Your task to perform on an android device: open device folders in google photos Image 0: 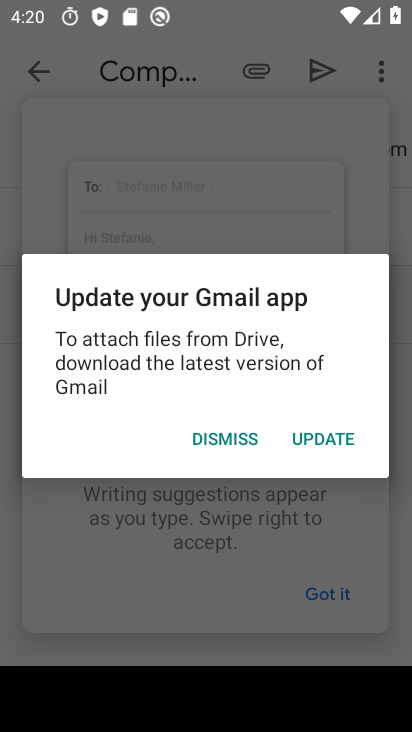
Step 0: press home button
Your task to perform on an android device: open device folders in google photos Image 1: 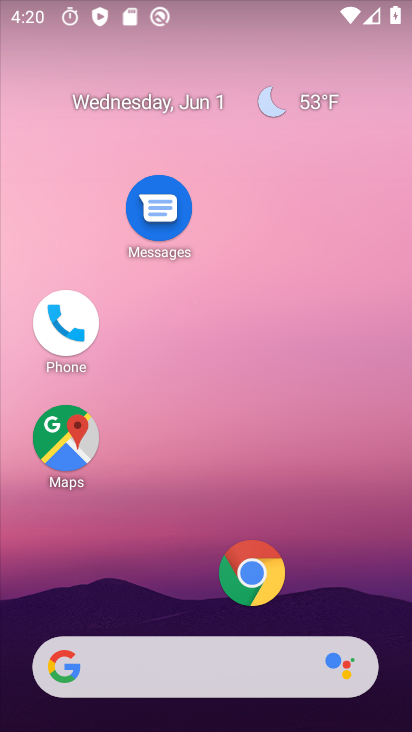
Step 1: drag from (165, 604) to (246, 77)
Your task to perform on an android device: open device folders in google photos Image 2: 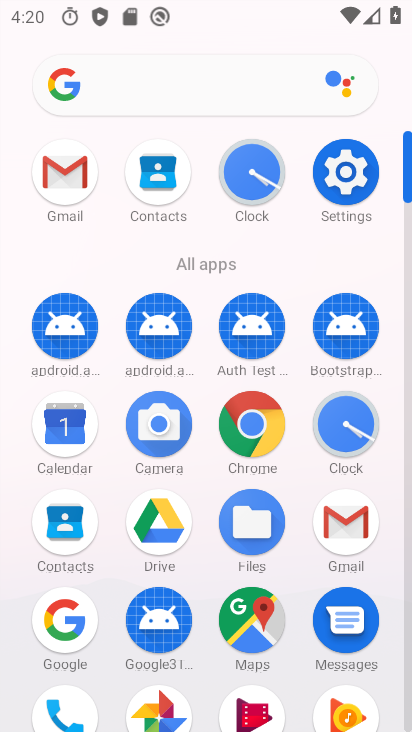
Step 2: click (157, 699)
Your task to perform on an android device: open device folders in google photos Image 3: 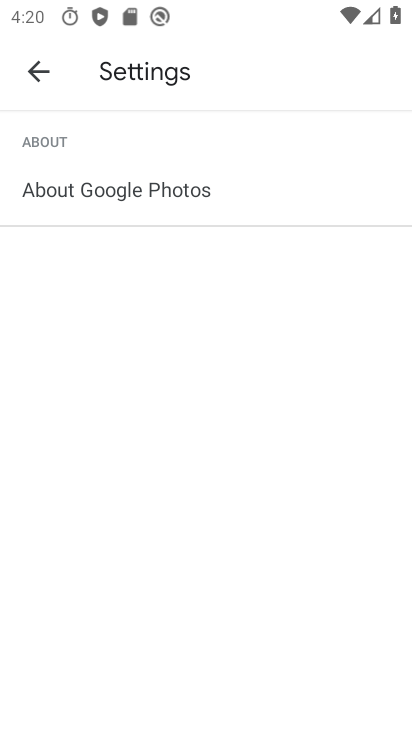
Step 3: click (38, 77)
Your task to perform on an android device: open device folders in google photos Image 4: 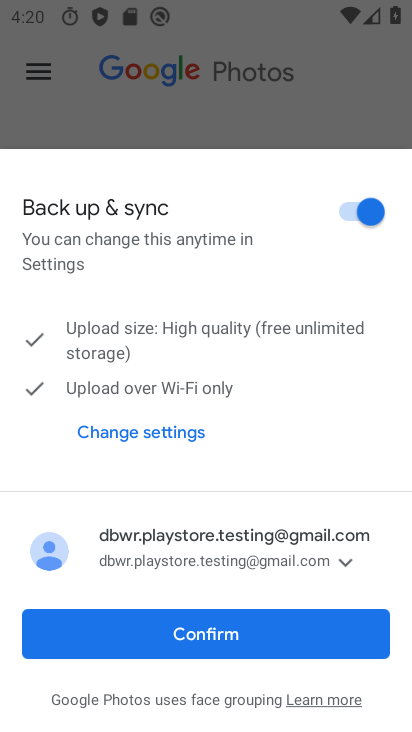
Step 4: click (243, 656)
Your task to perform on an android device: open device folders in google photos Image 5: 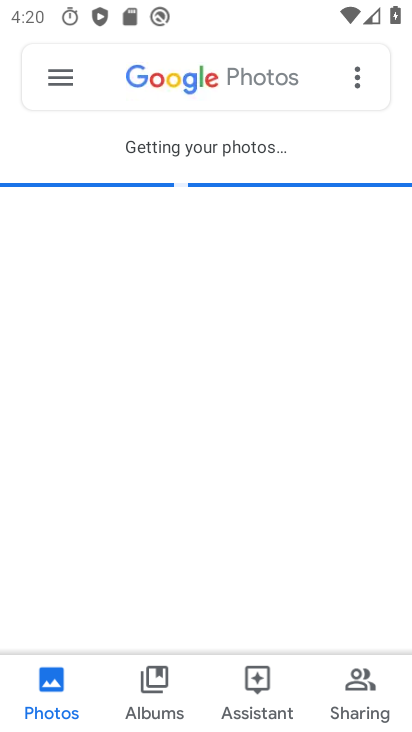
Step 5: click (34, 72)
Your task to perform on an android device: open device folders in google photos Image 6: 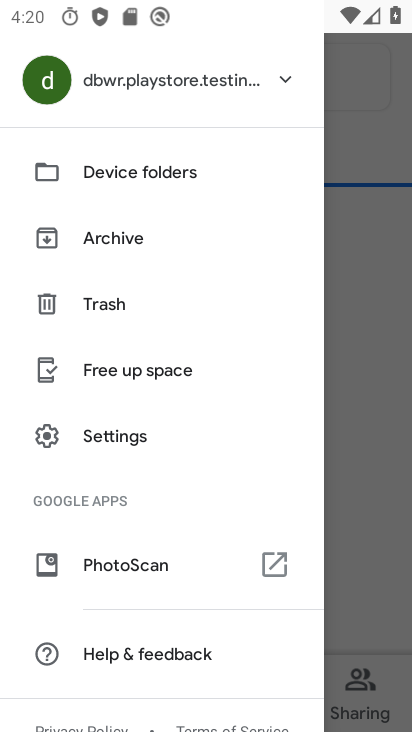
Step 6: click (189, 183)
Your task to perform on an android device: open device folders in google photos Image 7: 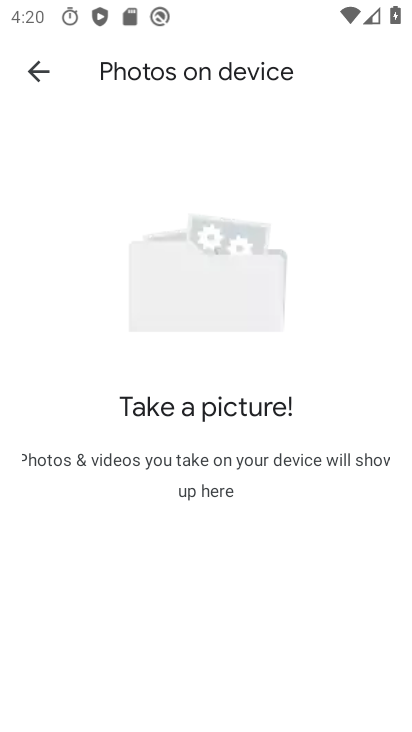
Step 7: task complete